Your task to perform on an android device: Turn off the flashlight Image 0: 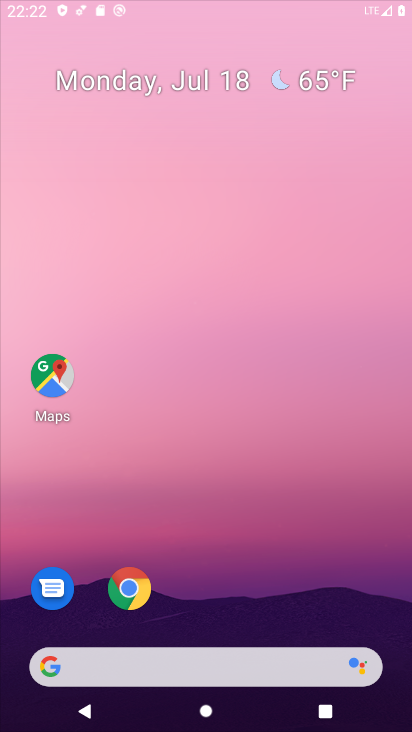
Step 0: press home button
Your task to perform on an android device: Turn off the flashlight Image 1: 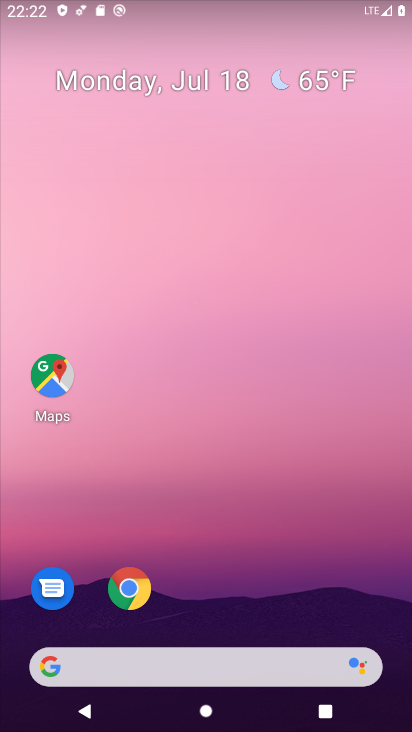
Step 1: task complete